Your task to perform on an android device: Go to eBay Image 0: 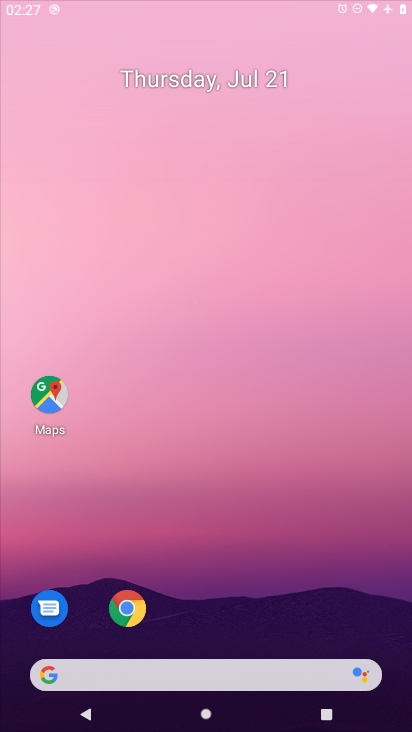
Step 0: press home button
Your task to perform on an android device: Go to eBay Image 1: 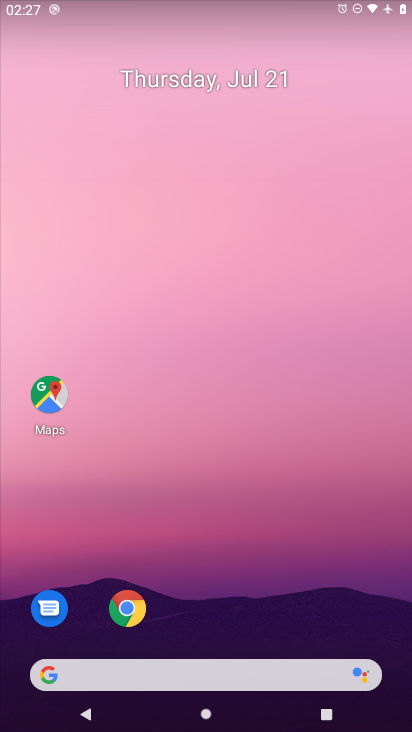
Step 1: click (44, 680)
Your task to perform on an android device: Go to eBay Image 2: 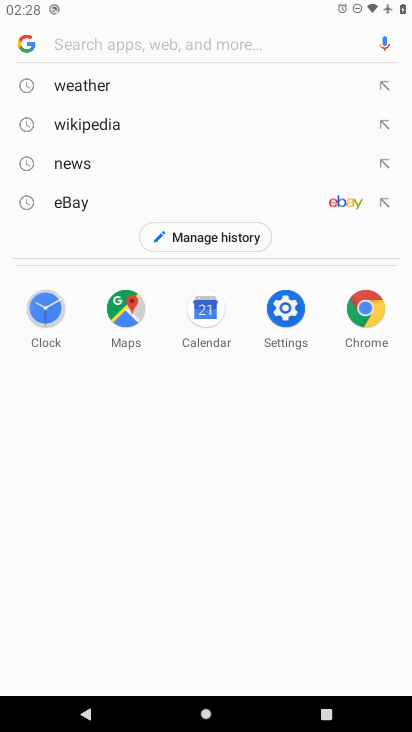
Step 2: click (75, 203)
Your task to perform on an android device: Go to eBay Image 3: 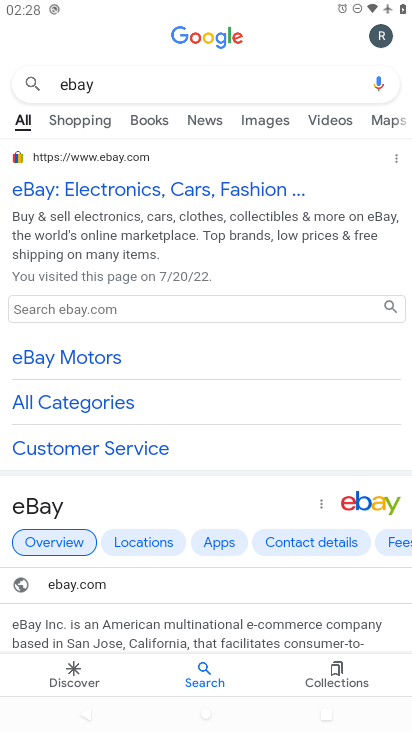
Step 3: click (100, 196)
Your task to perform on an android device: Go to eBay Image 4: 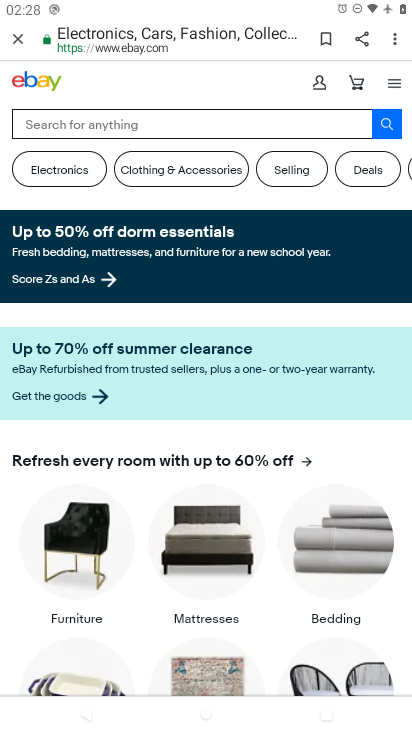
Step 4: task complete